Your task to perform on an android device: see sites visited before in the chrome app Image 0: 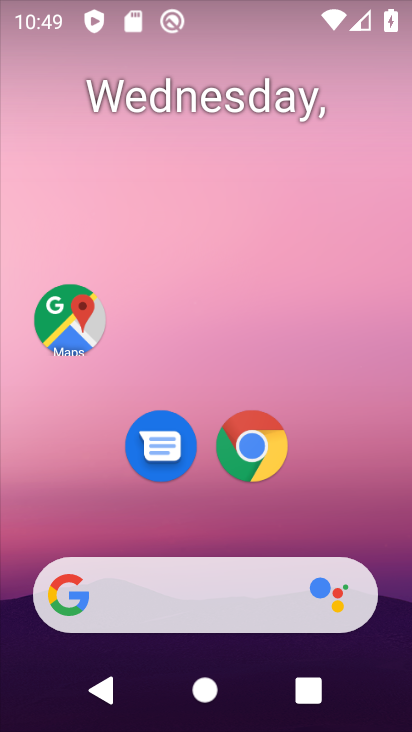
Step 0: drag from (383, 527) to (379, 170)
Your task to perform on an android device: see sites visited before in the chrome app Image 1: 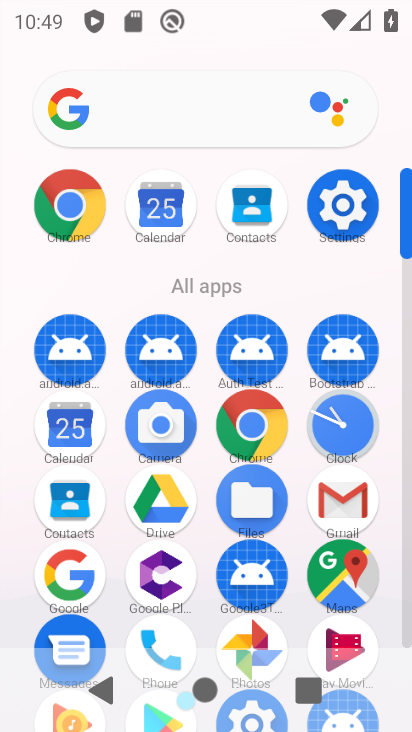
Step 1: click (262, 424)
Your task to perform on an android device: see sites visited before in the chrome app Image 2: 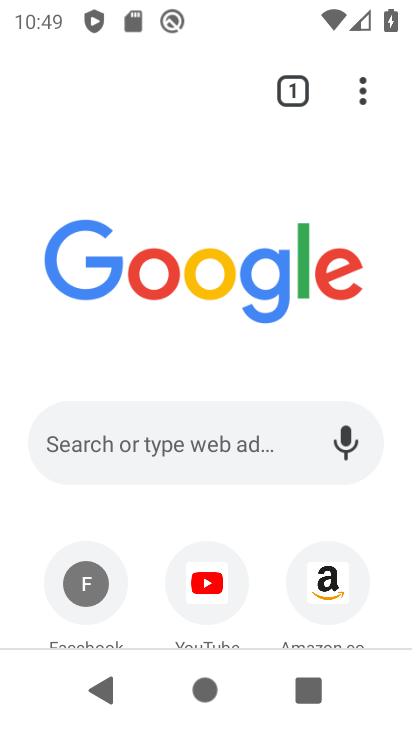
Step 2: click (362, 106)
Your task to perform on an android device: see sites visited before in the chrome app Image 3: 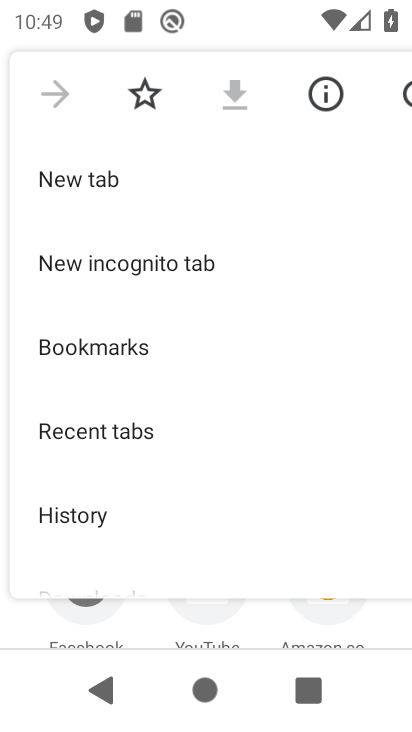
Step 3: click (111, 522)
Your task to perform on an android device: see sites visited before in the chrome app Image 4: 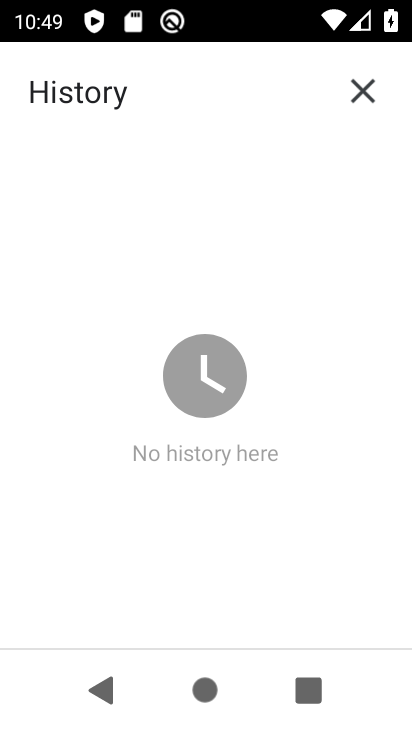
Step 4: task complete